Your task to perform on an android device: Open settings on Google Maps Image 0: 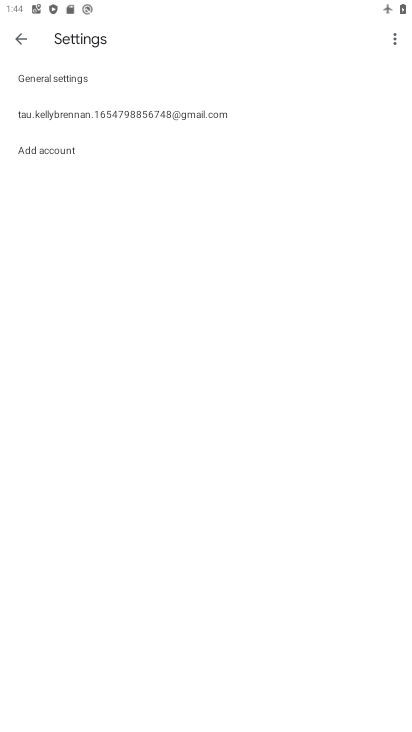
Step 0: press home button
Your task to perform on an android device: Open settings on Google Maps Image 1: 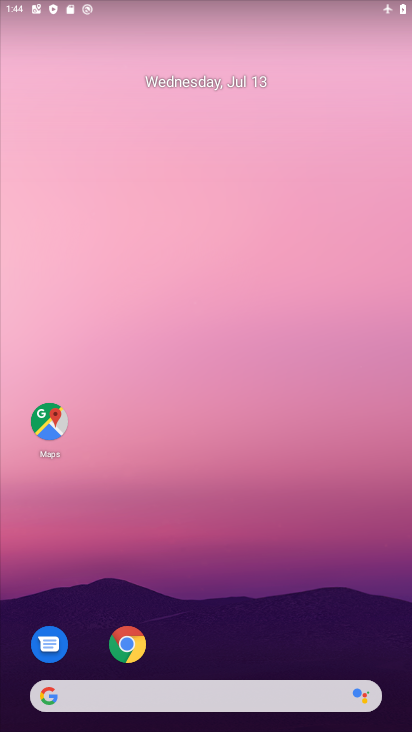
Step 1: click (59, 423)
Your task to perform on an android device: Open settings on Google Maps Image 2: 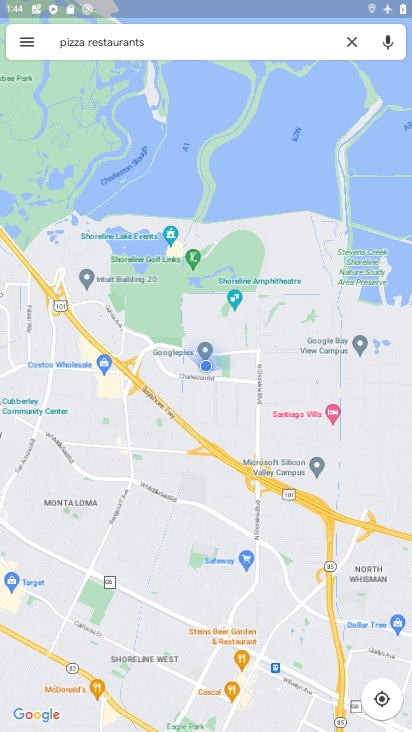
Step 2: click (29, 44)
Your task to perform on an android device: Open settings on Google Maps Image 3: 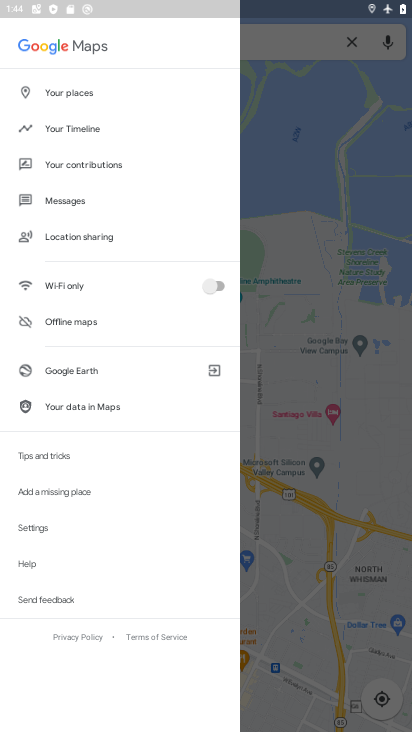
Step 3: click (46, 529)
Your task to perform on an android device: Open settings on Google Maps Image 4: 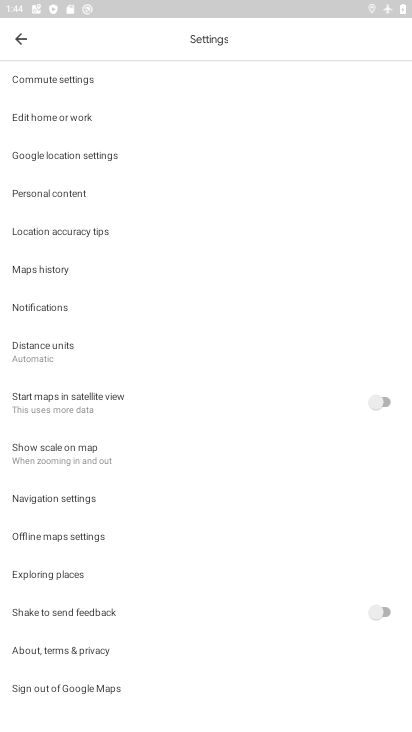
Step 4: task complete